Your task to perform on an android device: View the shopping cart on newegg. Search for "usb-b" on newegg, select the first entry, and add it to the cart. Image 0: 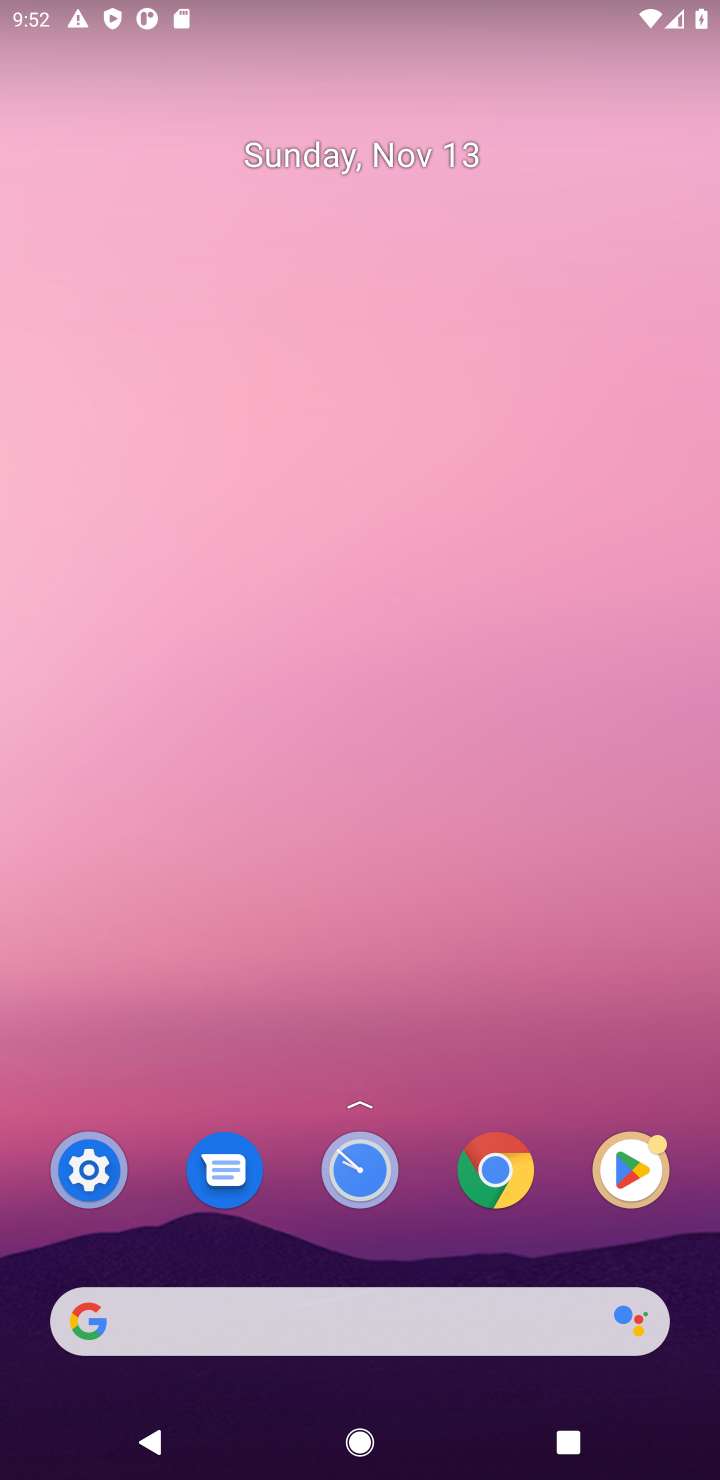
Step 0: click (298, 1335)
Your task to perform on an android device: View the shopping cart on newegg. Search for "usb-b" on newegg, select the first entry, and add it to the cart. Image 1: 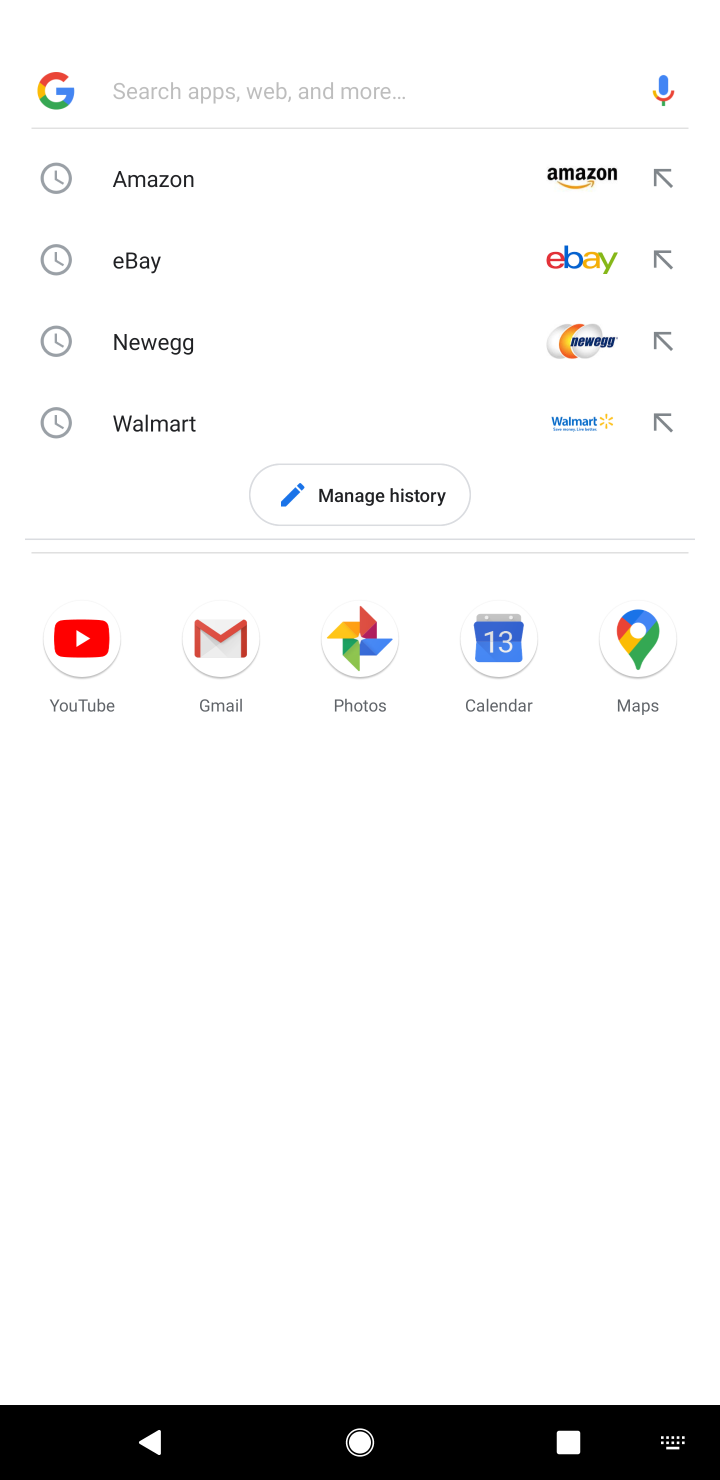
Step 1: type "newegg.com"
Your task to perform on an android device: View the shopping cart on newegg. Search for "usb-b" on newegg, select the first entry, and add it to the cart. Image 2: 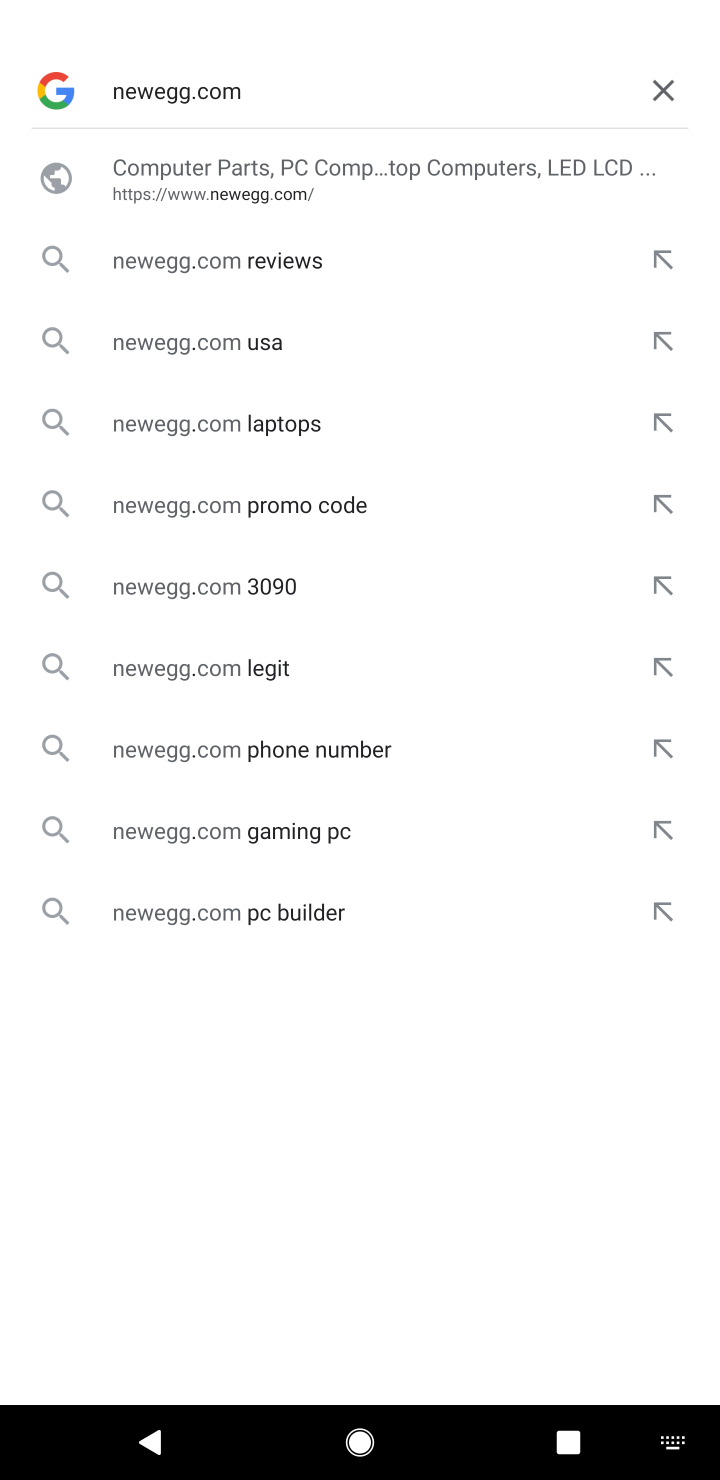
Step 2: click (353, 162)
Your task to perform on an android device: View the shopping cart on newegg. Search for "usb-b" on newegg, select the first entry, and add it to the cart. Image 3: 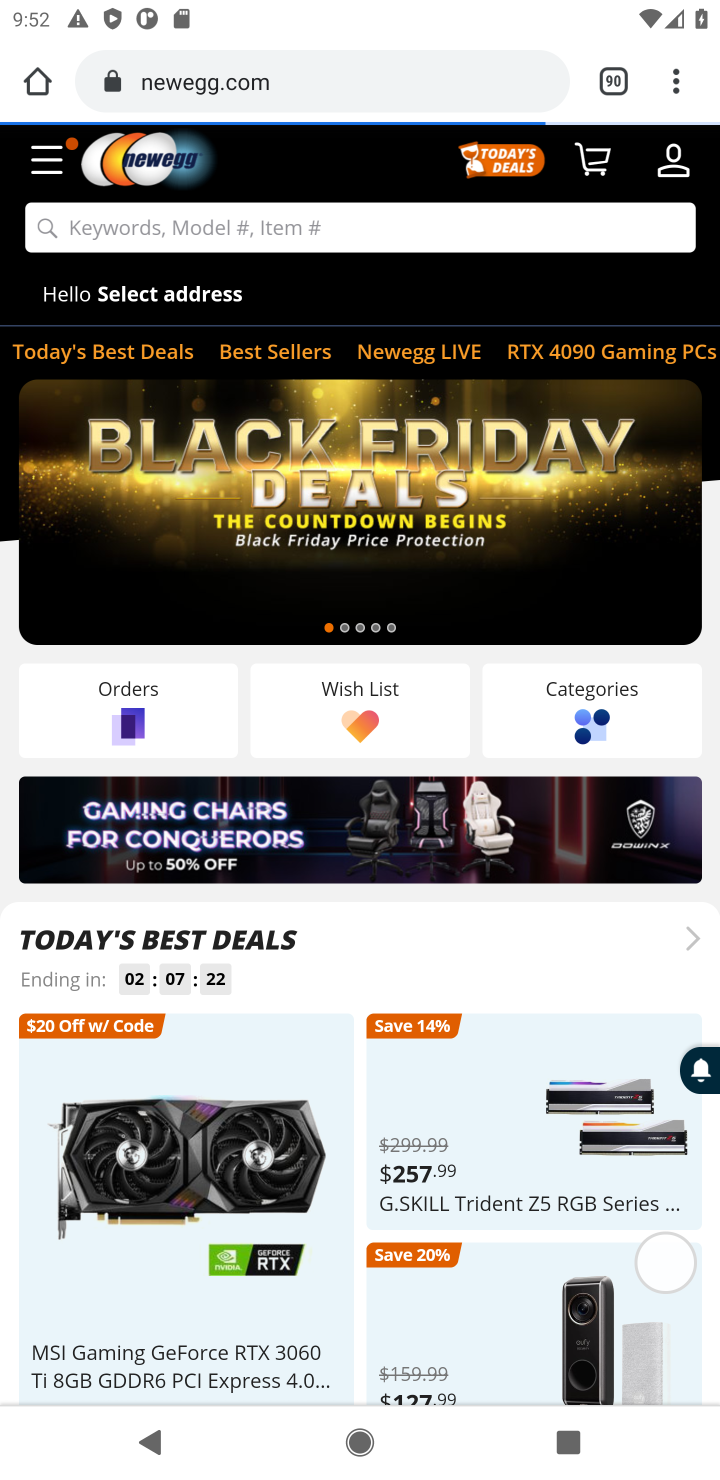
Step 3: click (170, 215)
Your task to perform on an android device: View the shopping cart on newegg. Search for "usb-b" on newegg, select the first entry, and add it to the cart. Image 4: 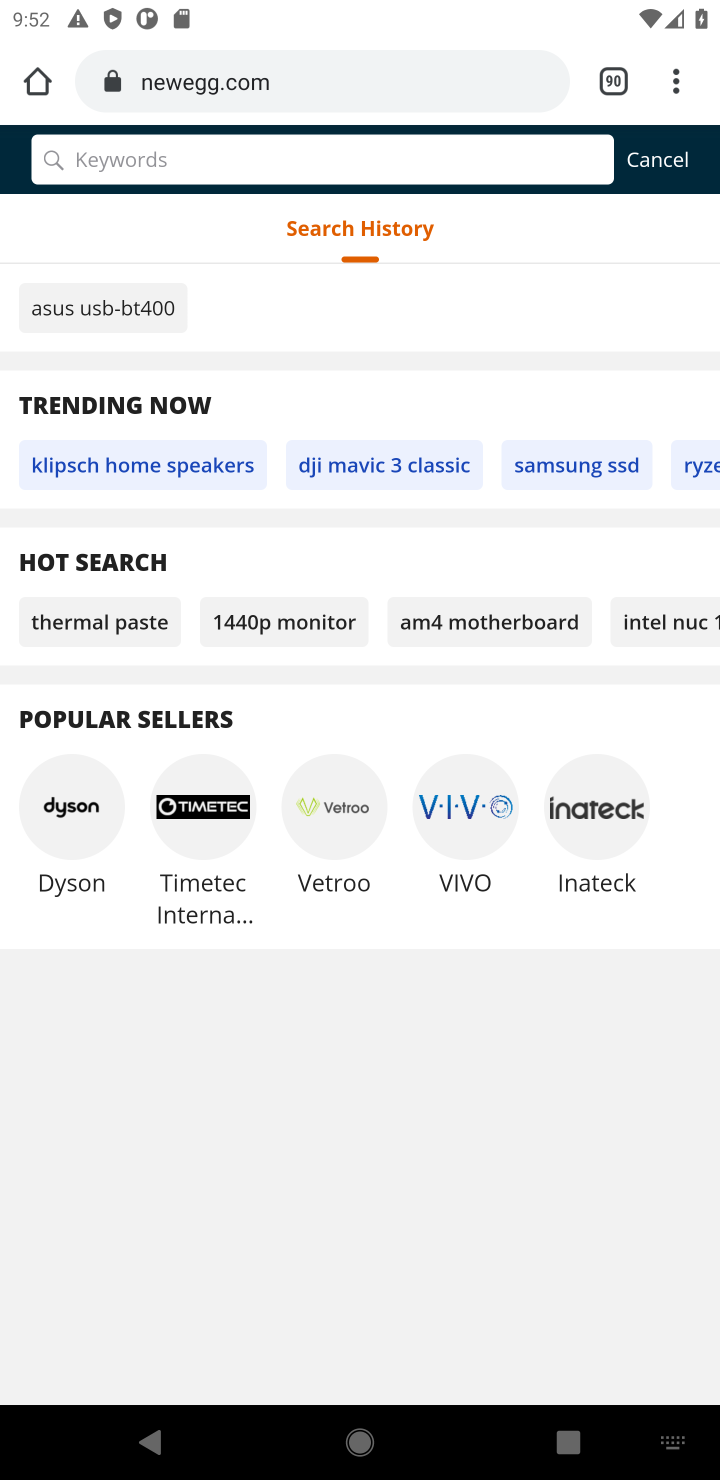
Step 4: task complete